Your task to perform on an android device: find snoozed emails in the gmail app Image 0: 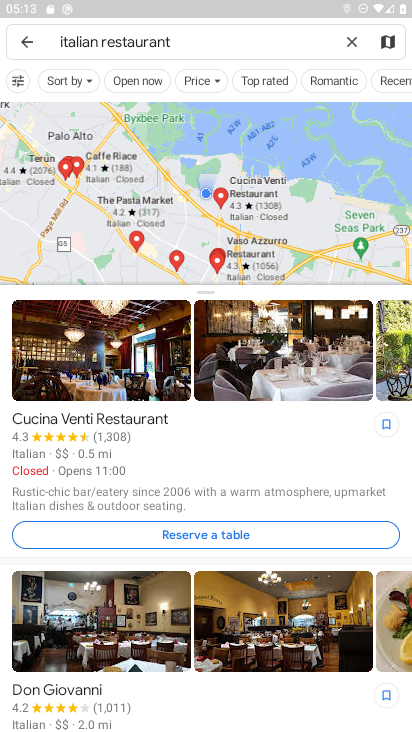
Step 0: press home button
Your task to perform on an android device: find snoozed emails in the gmail app Image 1: 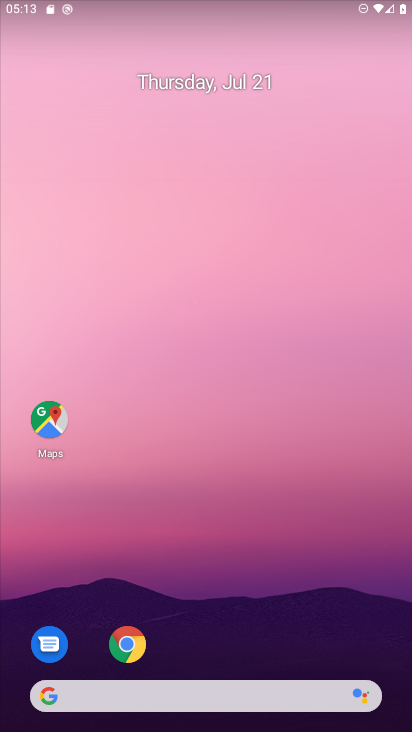
Step 1: drag from (186, 563) to (256, 66)
Your task to perform on an android device: find snoozed emails in the gmail app Image 2: 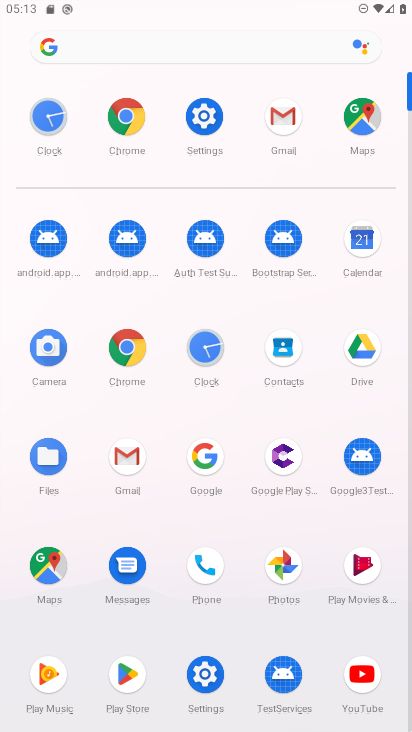
Step 2: click (285, 122)
Your task to perform on an android device: find snoozed emails in the gmail app Image 3: 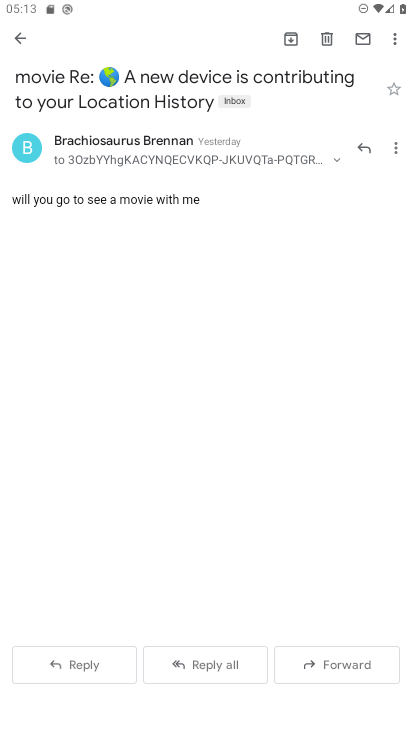
Step 3: click (21, 36)
Your task to perform on an android device: find snoozed emails in the gmail app Image 4: 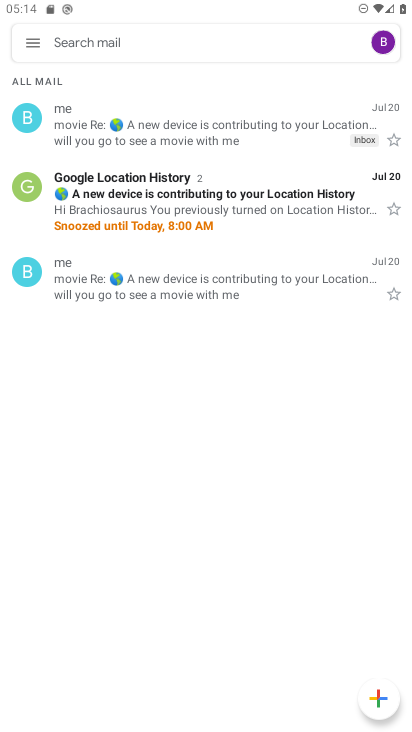
Step 4: click (29, 41)
Your task to perform on an android device: find snoozed emails in the gmail app Image 5: 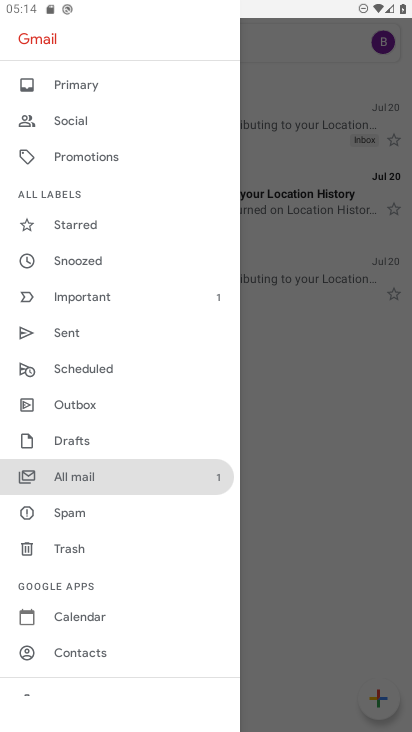
Step 5: click (66, 260)
Your task to perform on an android device: find snoozed emails in the gmail app Image 6: 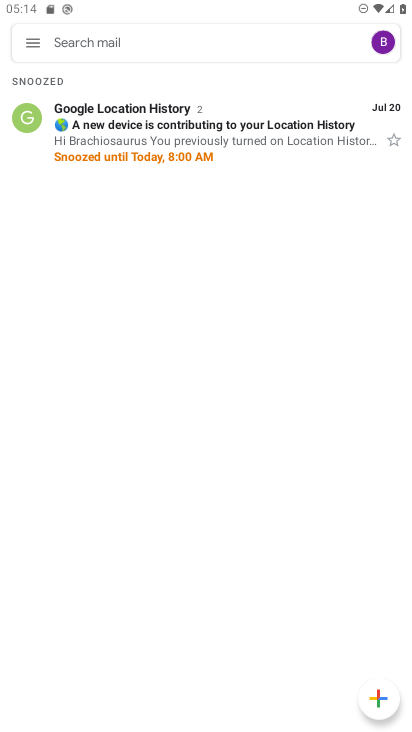
Step 6: task complete